Your task to perform on an android device: Go to battery settings Image 0: 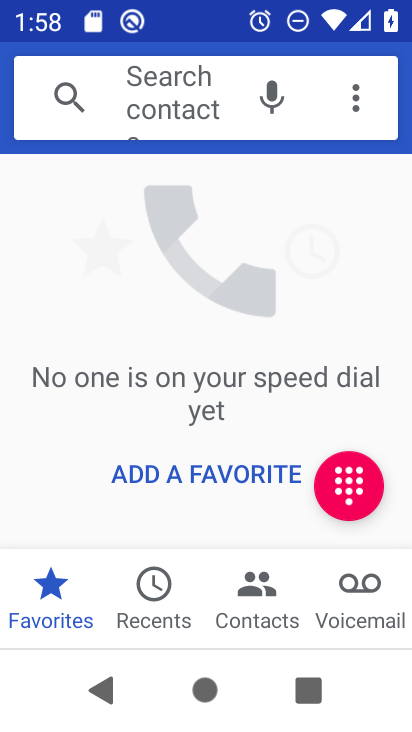
Step 0: drag from (364, 11) to (339, 514)
Your task to perform on an android device: Go to battery settings Image 1: 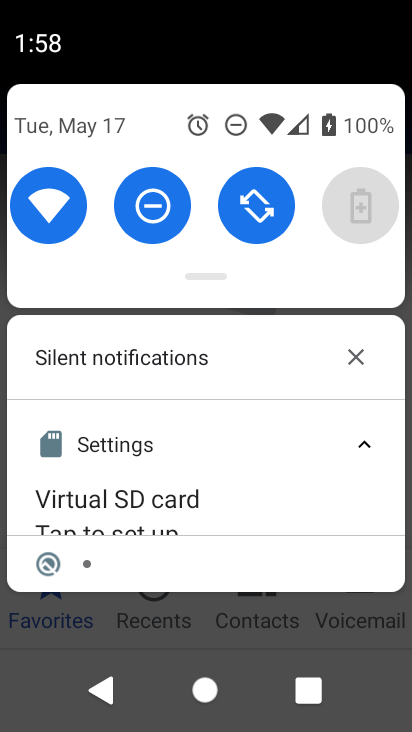
Step 1: drag from (247, 265) to (278, 728)
Your task to perform on an android device: Go to battery settings Image 2: 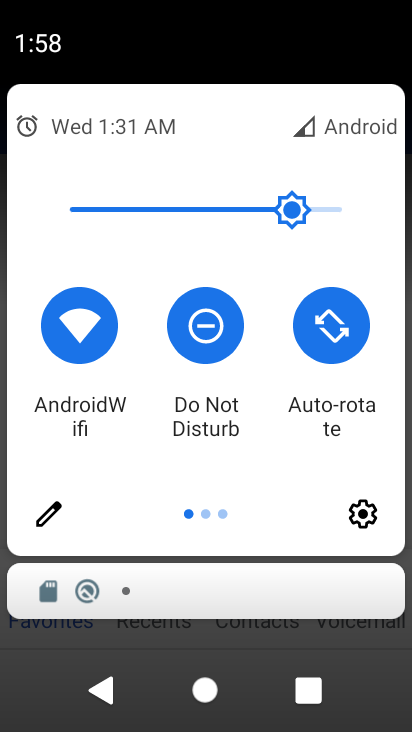
Step 2: click (370, 518)
Your task to perform on an android device: Go to battery settings Image 3: 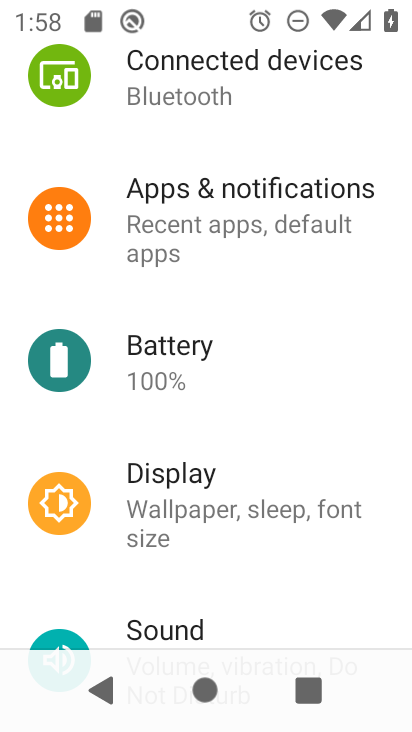
Step 3: click (187, 349)
Your task to perform on an android device: Go to battery settings Image 4: 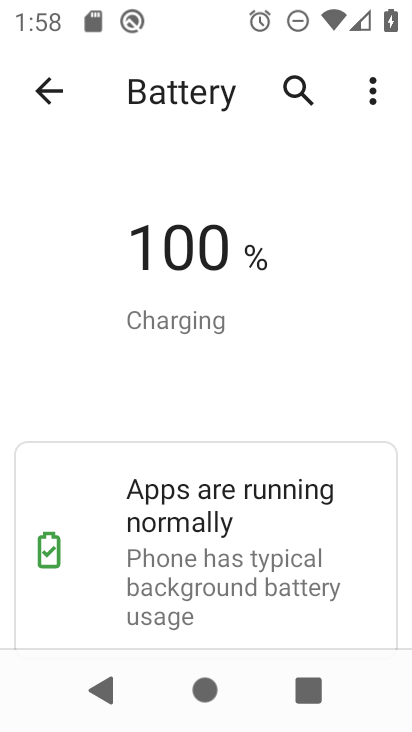
Step 4: task complete